Your task to perform on an android device: turn off javascript in the chrome app Image 0: 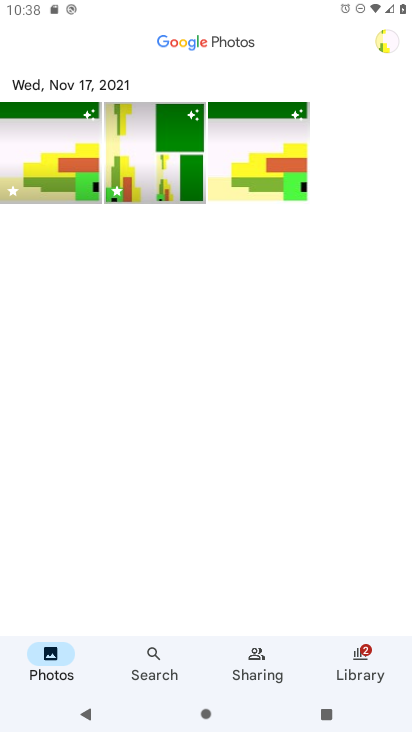
Step 0: press home button
Your task to perform on an android device: turn off javascript in the chrome app Image 1: 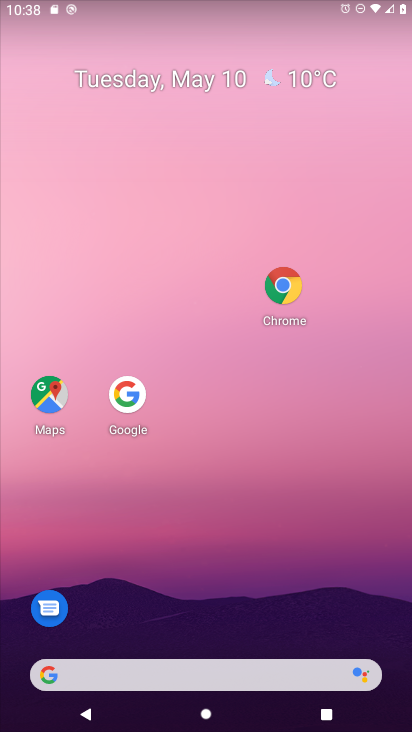
Step 1: drag from (110, 676) to (251, 236)
Your task to perform on an android device: turn off javascript in the chrome app Image 2: 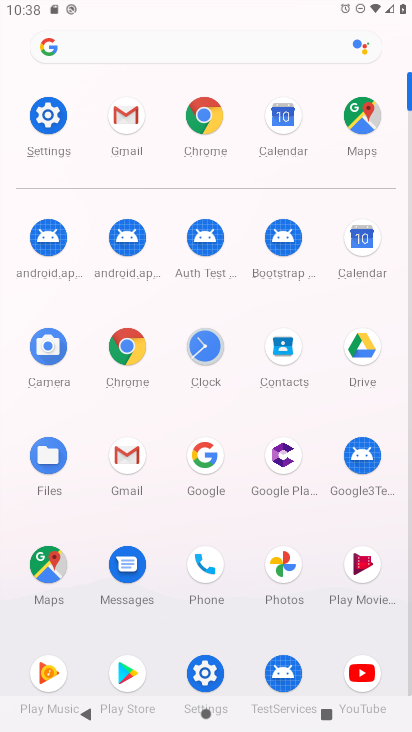
Step 2: click (205, 121)
Your task to perform on an android device: turn off javascript in the chrome app Image 3: 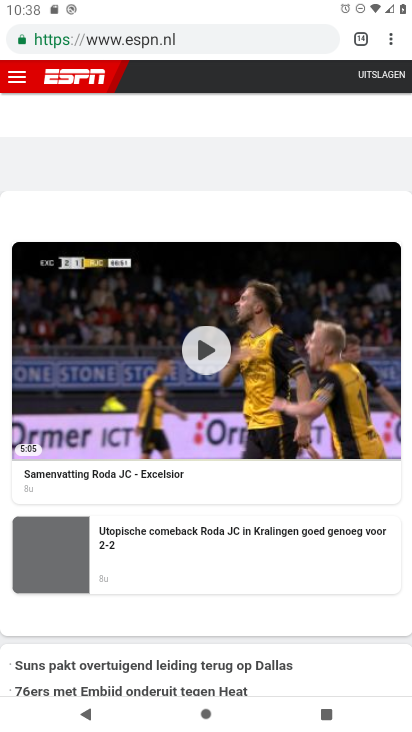
Step 3: drag from (387, 44) to (254, 468)
Your task to perform on an android device: turn off javascript in the chrome app Image 4: 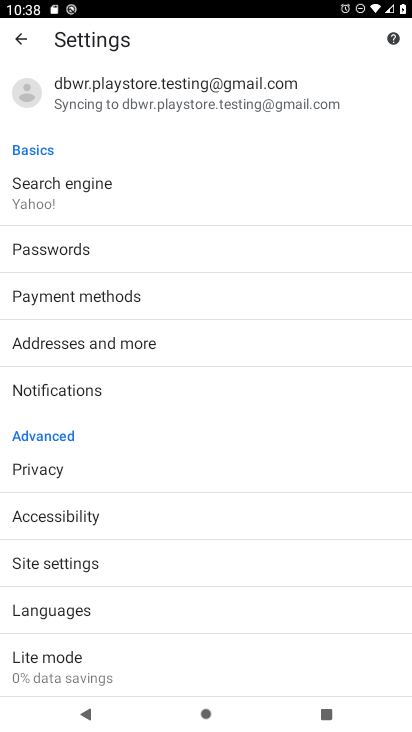
Step 4: click (42, 564)
Your task to perform on an android device: turn off javascript in the chrome app Image 5: 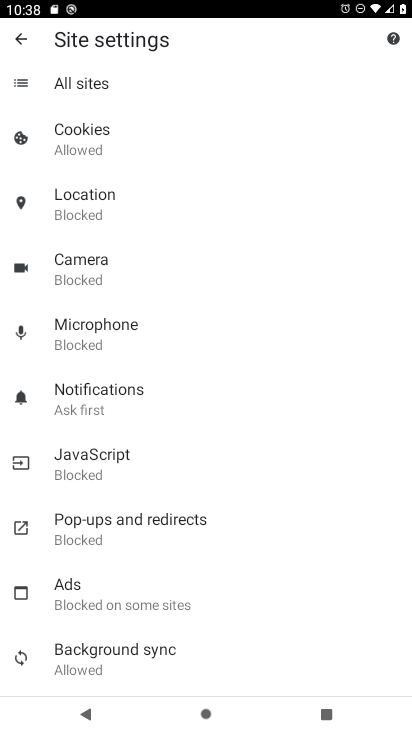
Step 5: click (71, 461)
Your task to perform on an android device: turn off javascript in the chrome app Image 6: 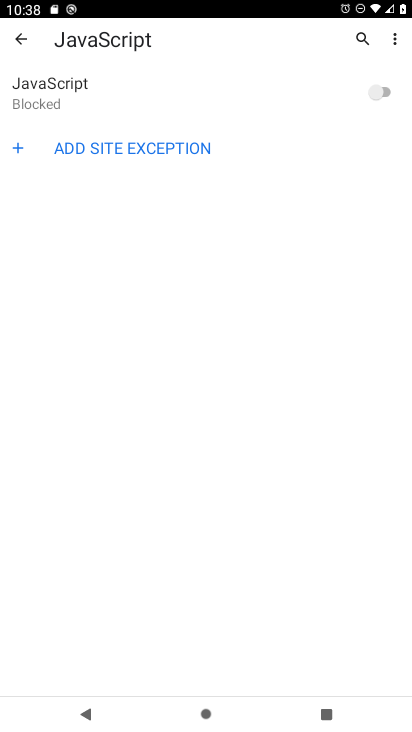
Step 6: task complete